Your task to perform on an android device: Go to Maps Image 0: 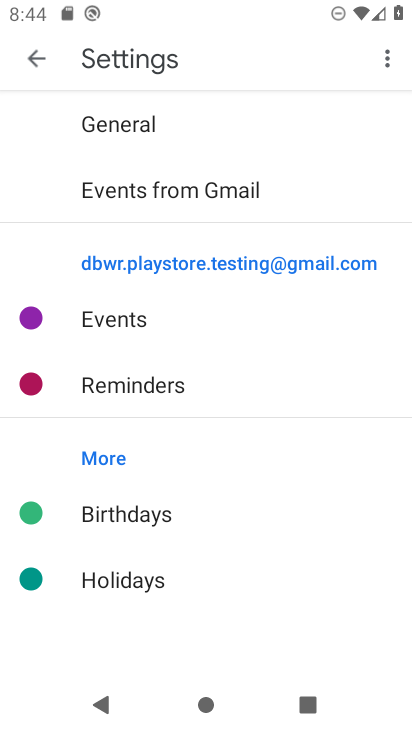
Step 0: press home button
Your task to perform on an android device: Go to Maps Image 1: 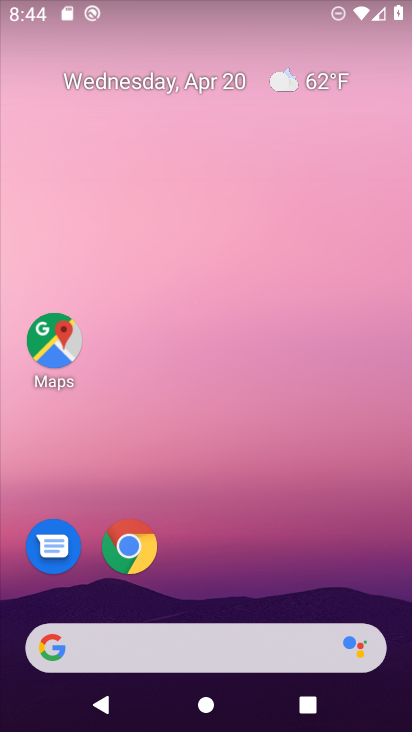
Step 1: click (45, 342)
Your task to perform on an android device: Go to Maps Image 2: 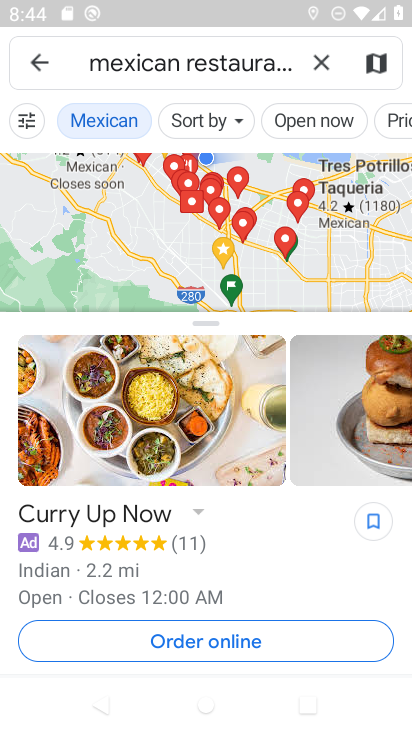
Step 2: click (319, 55)
Your task to perform on an android device: Go to Maps Image 3: 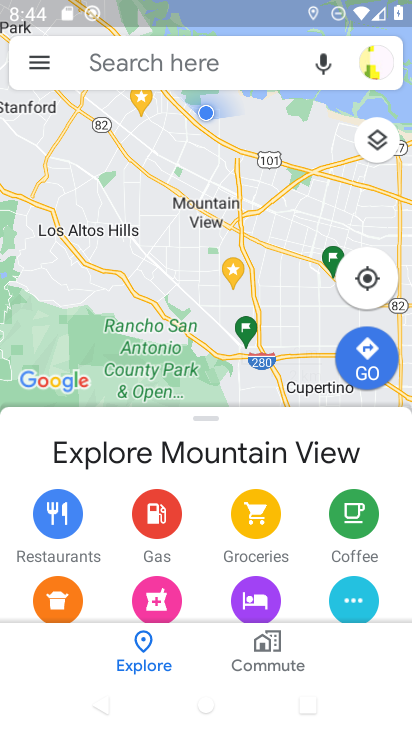
Step 3: task complete